Your task to perform on an android device: What's a good restaurant in New York? Image 0: 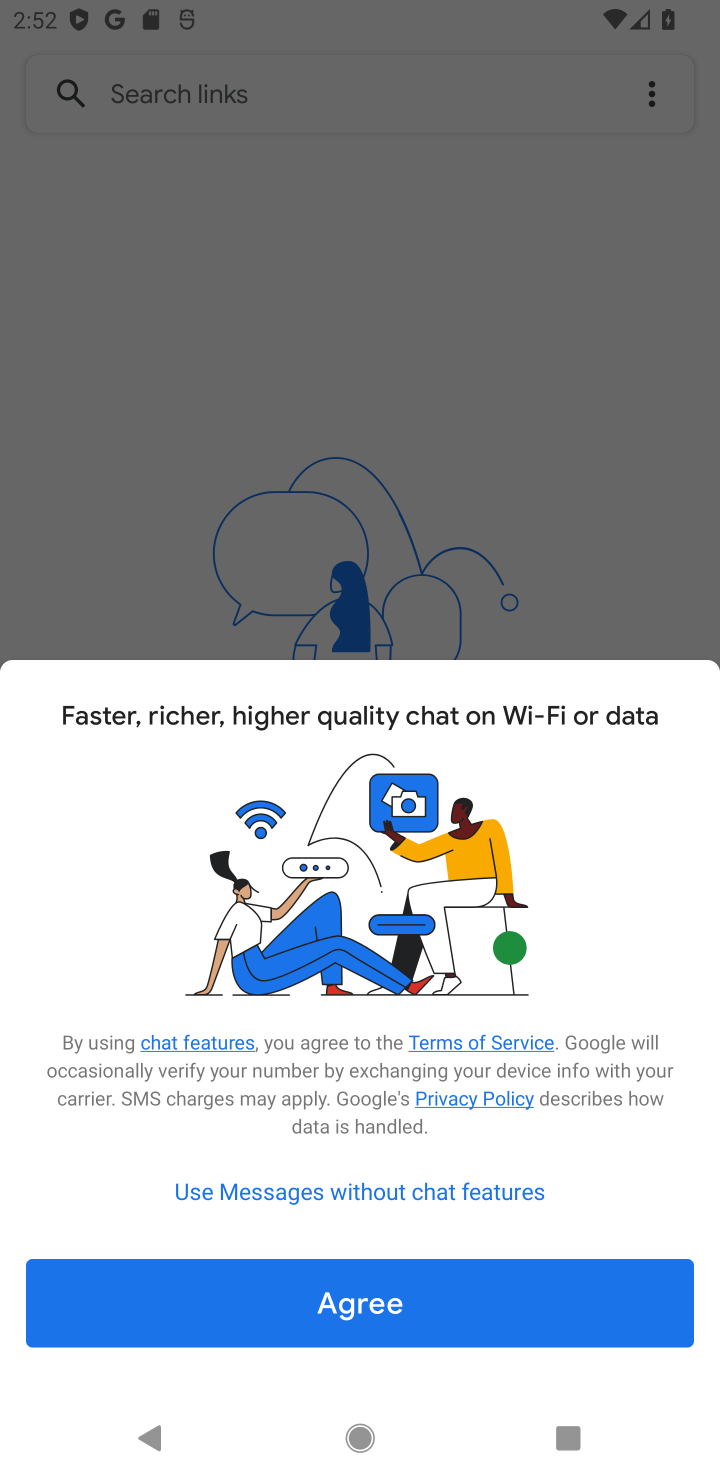
Step 0: press home button
Your task to perform on an android device: What's a good restaurant in New York? Image 1: 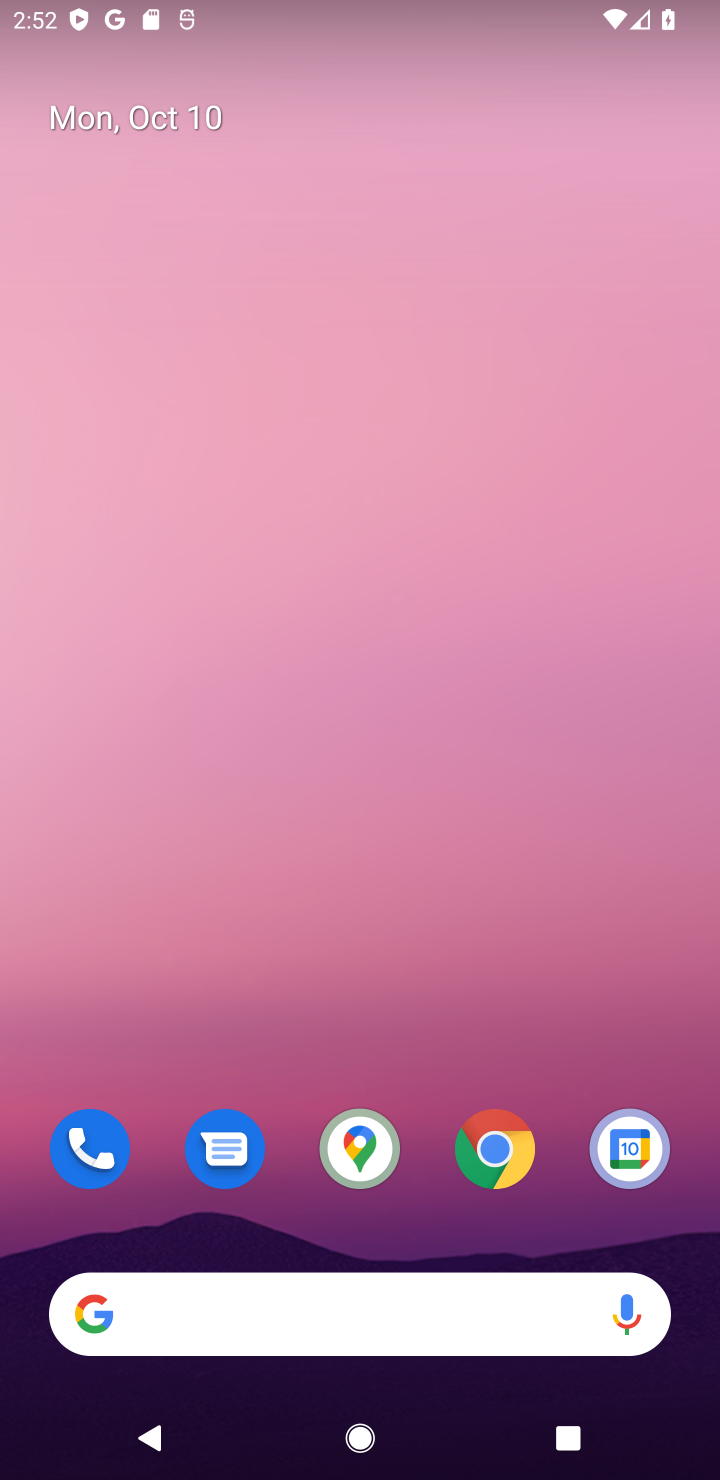
Step 1: click (300, 1328)
Your task to perform on an android device: What's a good restaurant in New York? Image 2: 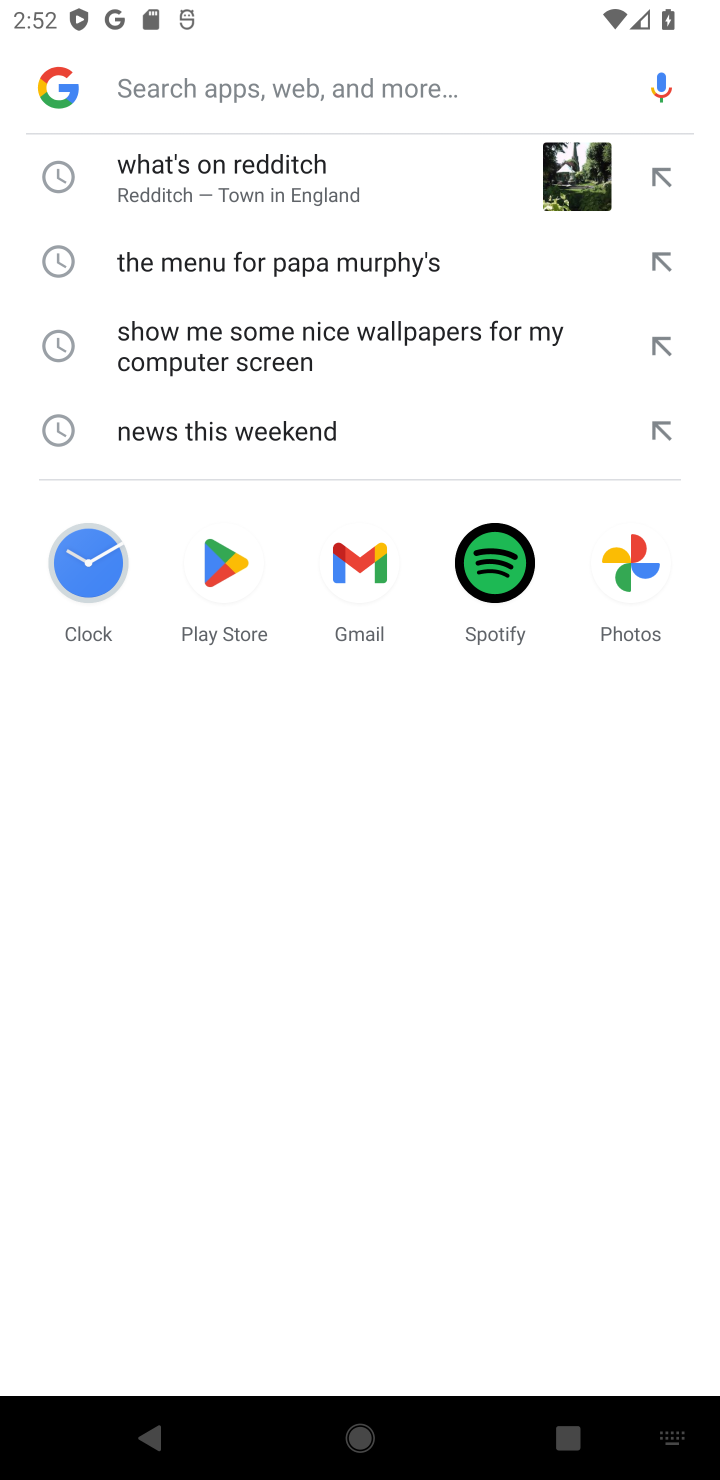
Step 2: type "What's a good restaurant in New York"
Your task to perform on an android device: What's a good restaurant in New York? Image 3: 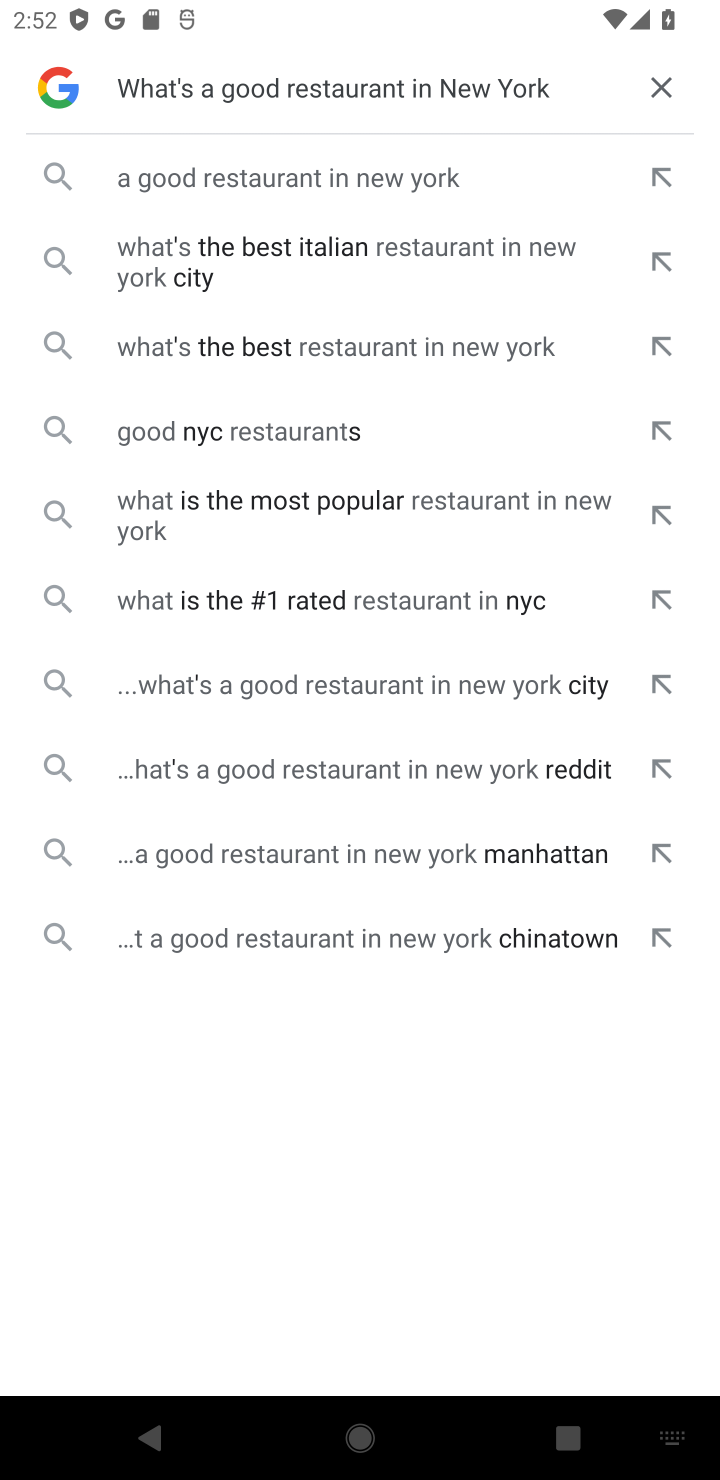
Step 3: click (556, 165)
Your task to perform on an android device: What's a good restaurant in New York? Image 4: 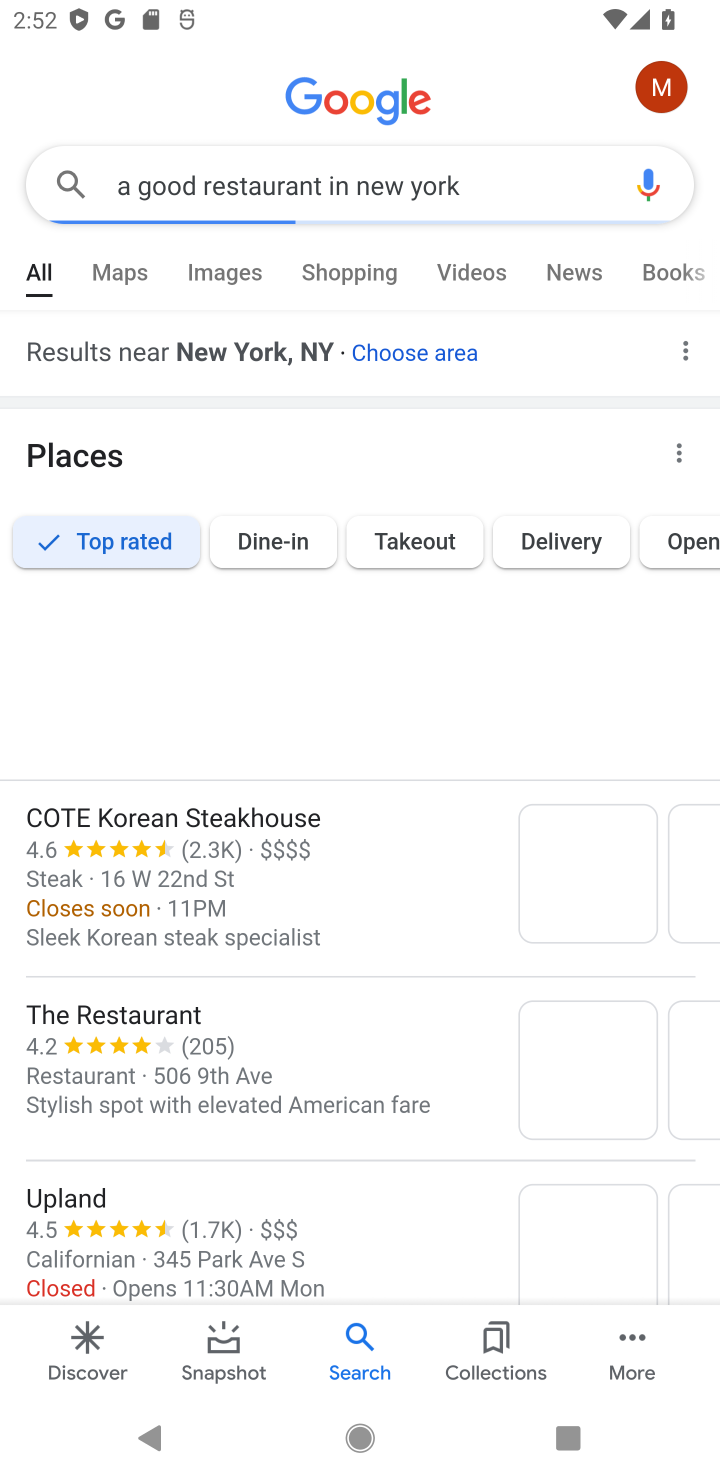
Step 4: task complete